Your task to perform on an android device: open app "Google Find My Device" Image 0: 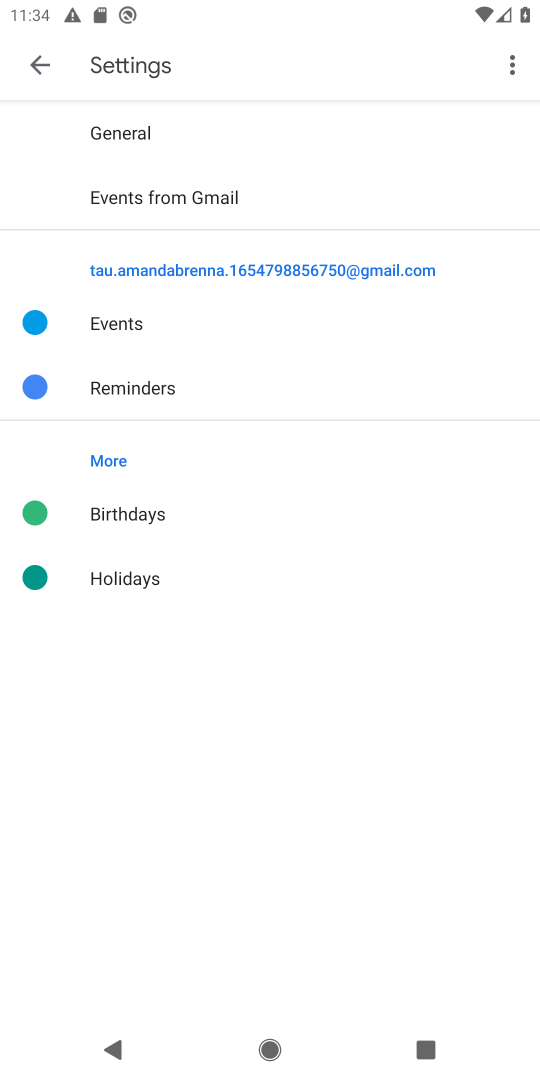
Step 0: press home button
Your task to perform on an android device: open app "Google Find My Device" Image 1: 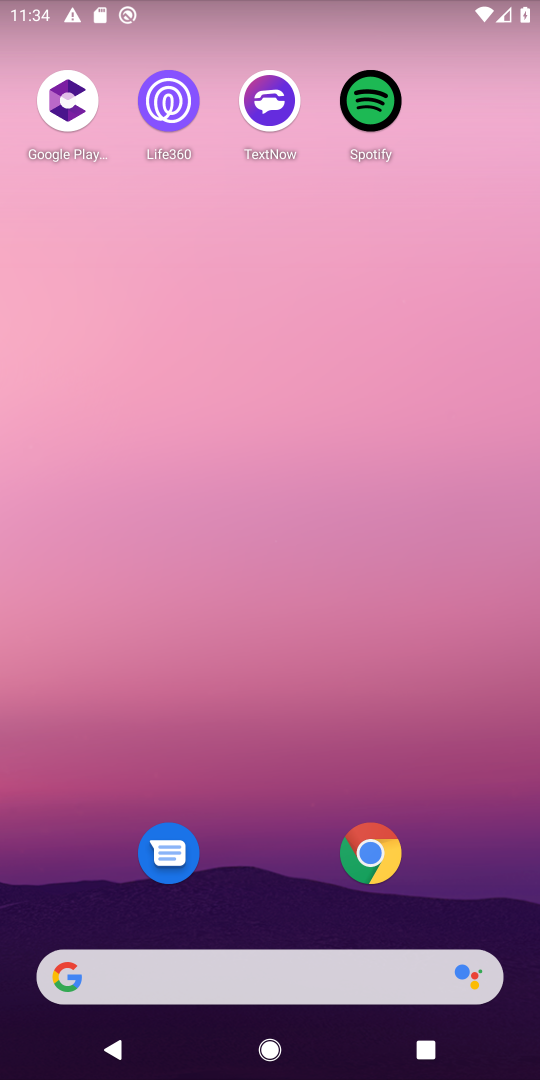
Step 1: drag from (267, 704) to (277, 220)
Your task to perform on an android device: open app "Google Find My Device" Image 2: 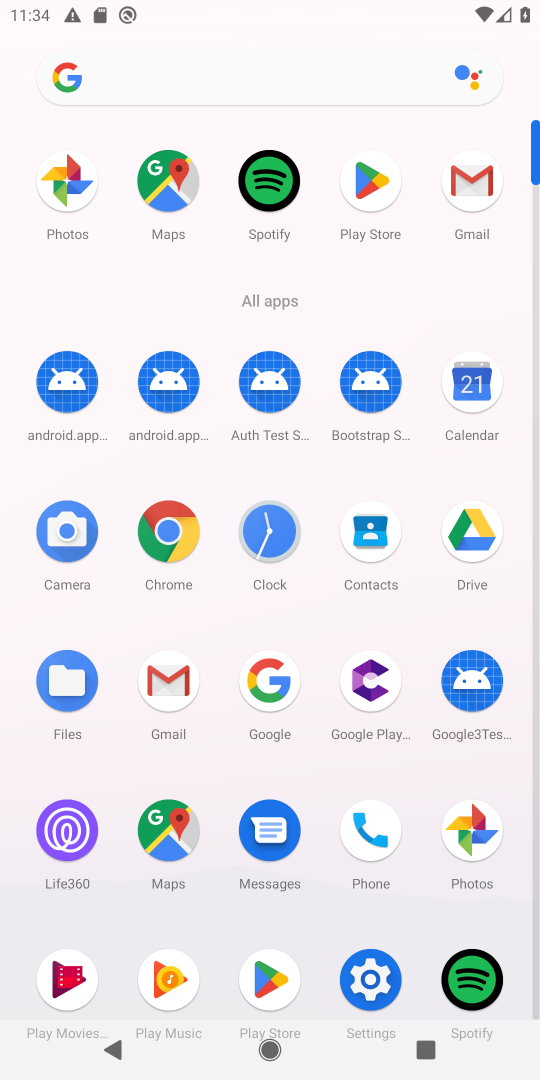
Step 2: click (373, 178)
Your task to perform on an android device: open app "Google Find My Device" Image 3: 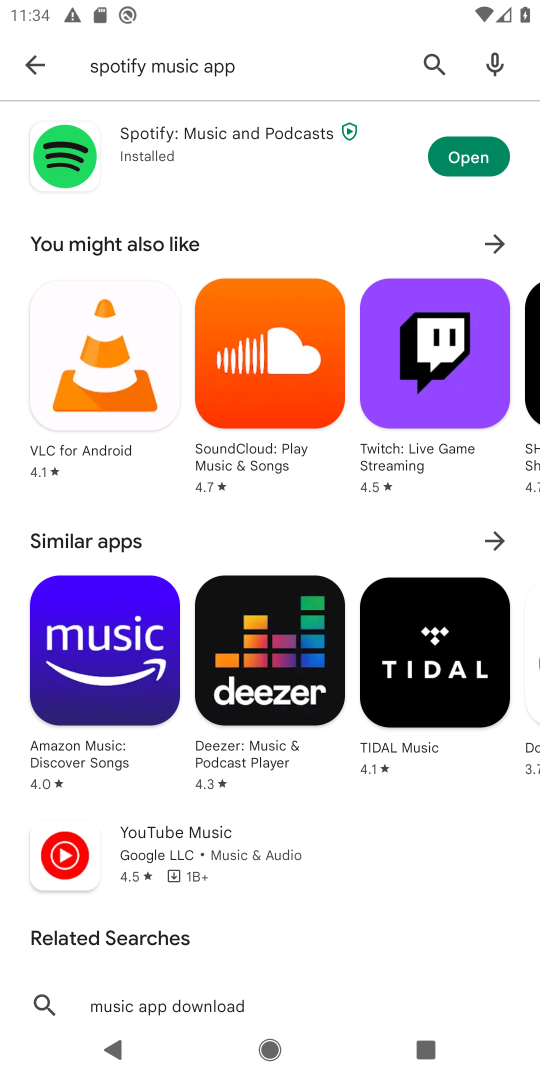
Step 3: click (30, 69)
Your task to perform on an android device: open app "Google Find My Device" Image 4: 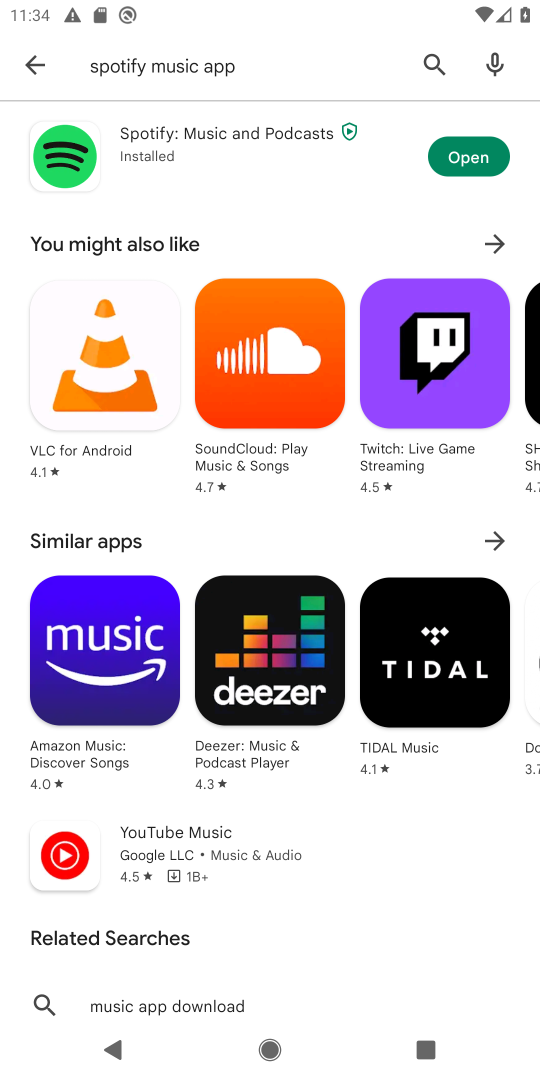
Step 4: click (30, 66)
Your task to perform on an android device: open app "Google Find My Device" Image 5: 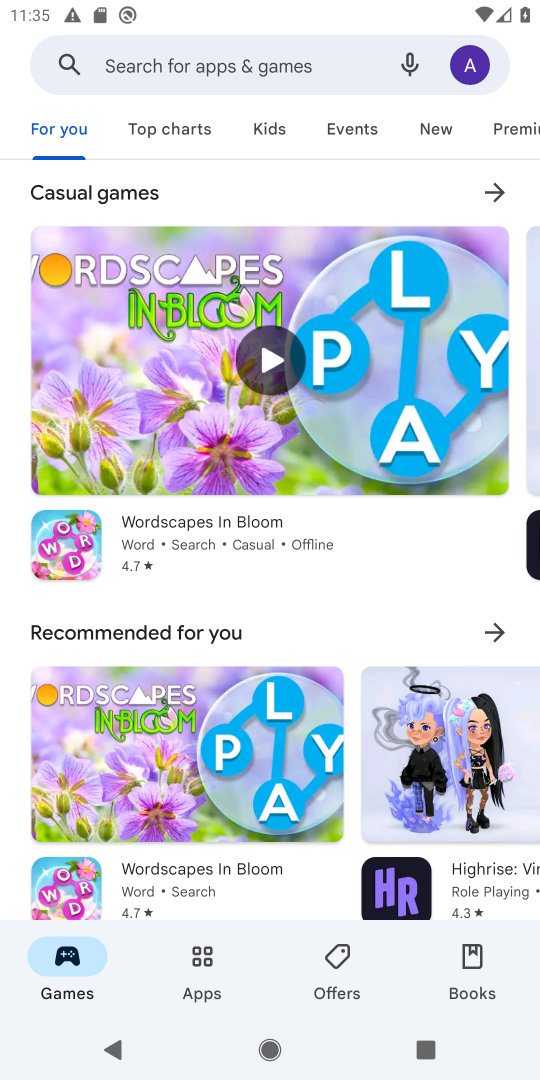
Step 5: click (192, 50)
Your task to perform on an android device: open app "Google Find My Device" Image 6: 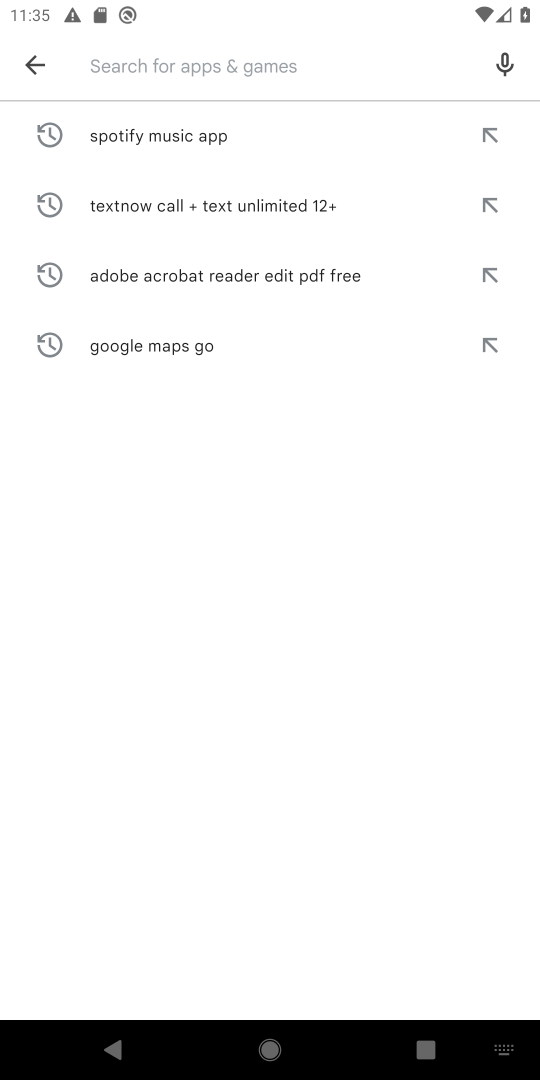
Step 6: type "Google Find My Device "
Your task to perform on an android device: open app "Google Find My Device" Image 7: 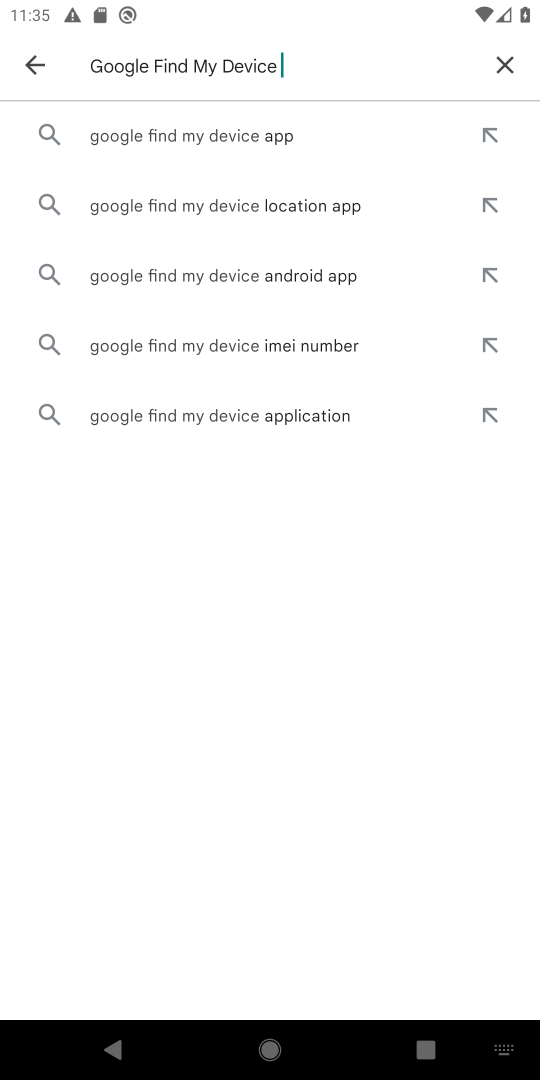
Step 7: click (177, 124)
Your task to perform on an android device: open app "Google Find My Device" Image 8: 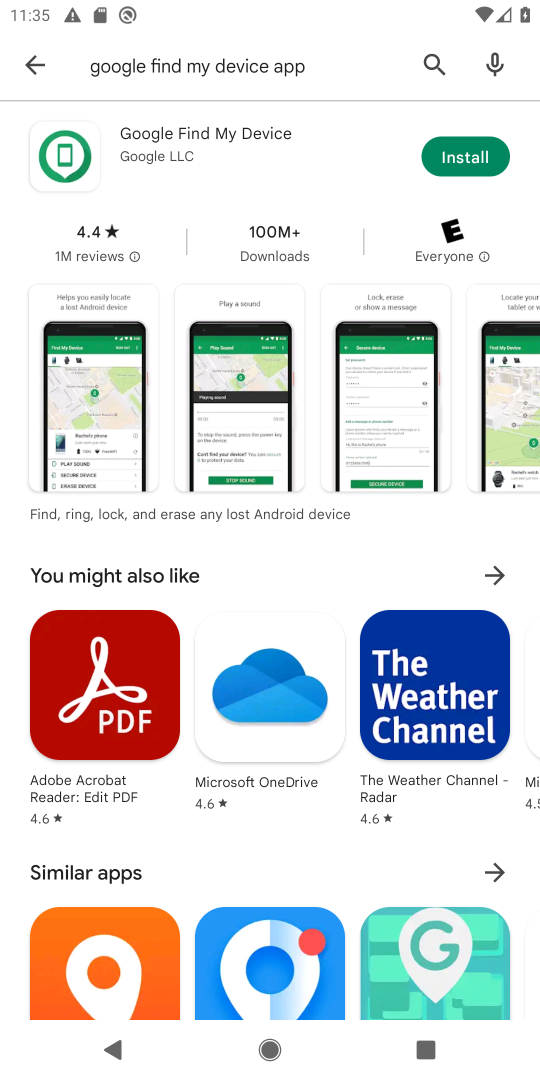
Step 8: click (449, 146)
Your task to perform on an android device: open app "Google Find My Device" Image 9: 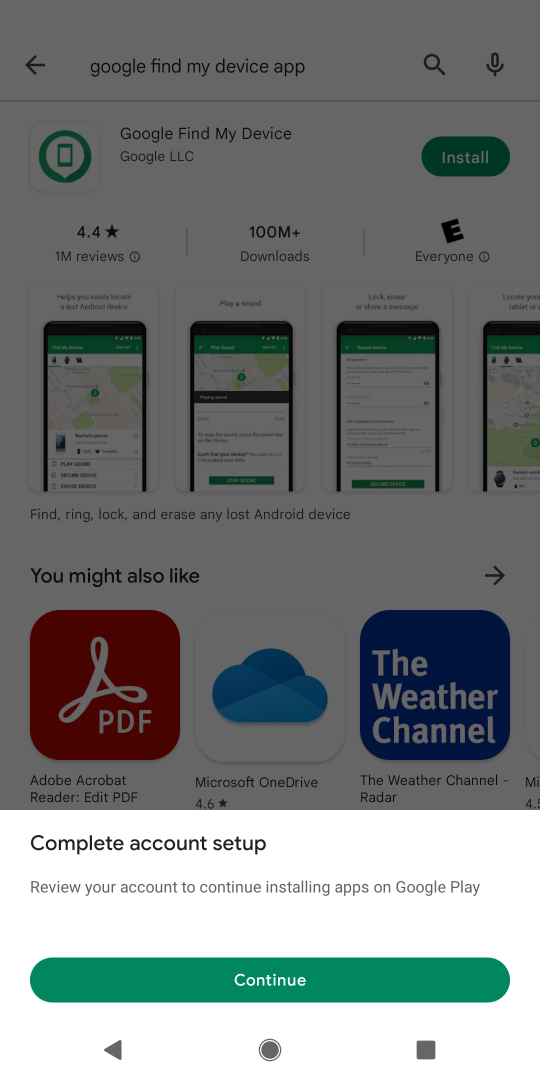
Step 9: task complete